Your task to perform on an android device: empty trash in the gmail app Image 0: 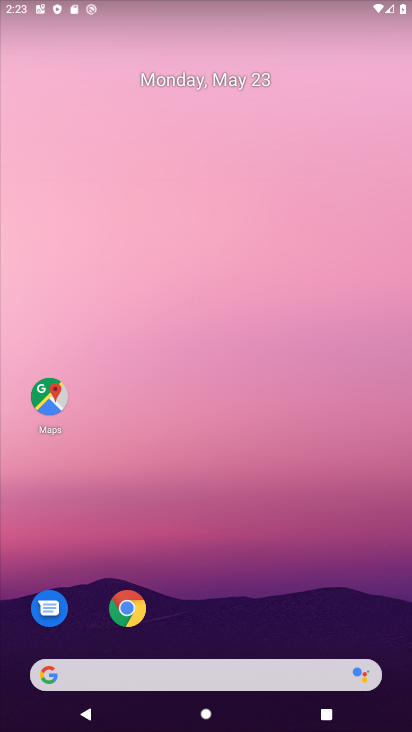
Step 0: drag from (197, 616) to (252, 133)
Your task to perform on an android device: empty trash in the gmail app Image 1: 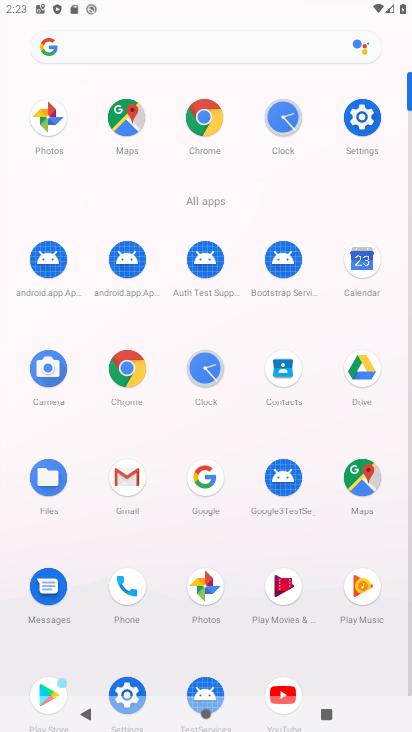
Step 1: click (124, 478)
Your task to perform on an android device: empty trash in the gmail app Image 2: 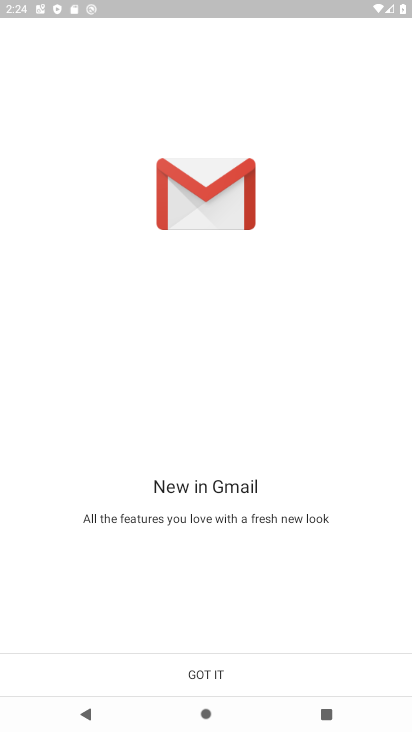
Step 2: click (200, 668)
Your task to perform on an android device: empty trash in the gmail app Image 3: 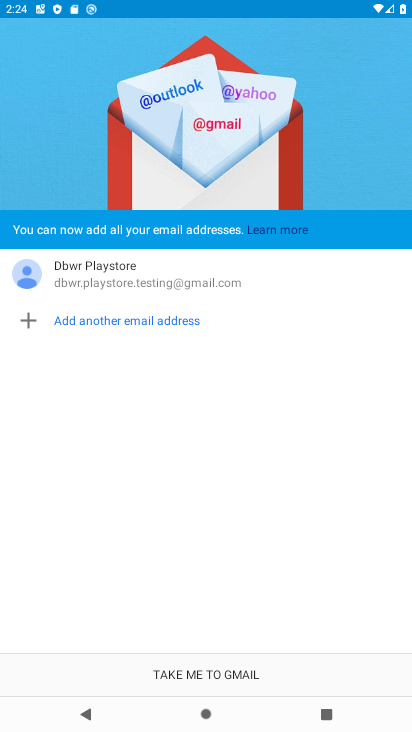
Step 3: click (202, 670)
Your task to perform on an android device: empty trash in the gmail app Image 4: 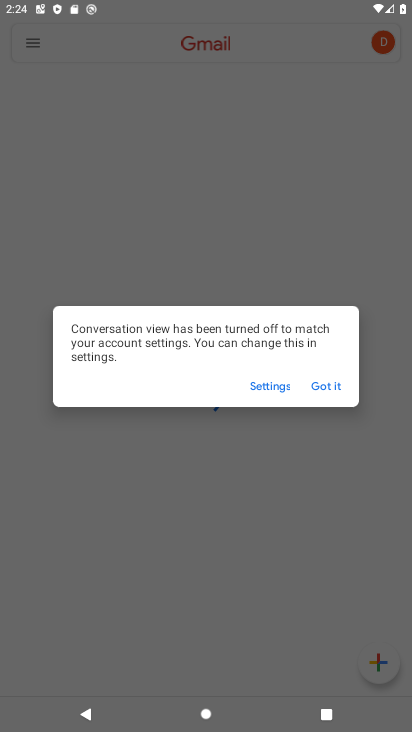
Step 4: click (322, 383)
Your task to perform on an android device: empty trash in the gmail app Image 5: 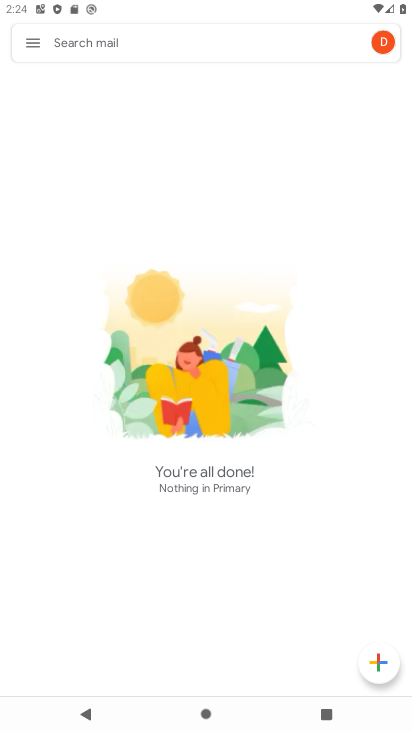
Step 5: click (35, 43)
Your task to perform on an android device: empty trash in the gmail app Image 6: 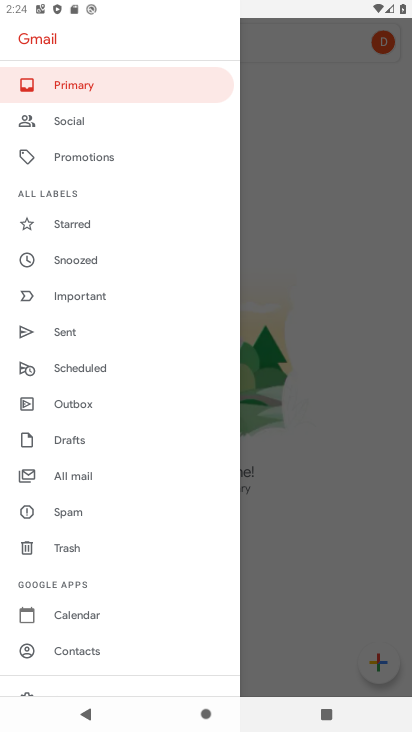
Step 6: click (91, 548)
Your task to perform on an android device: empty trash in the gmail app Image 7: 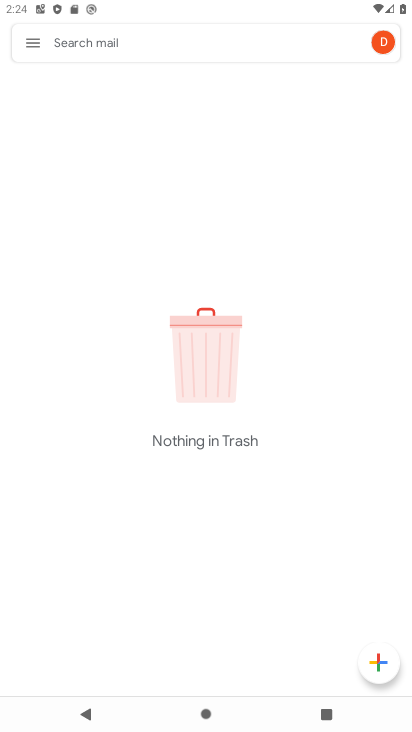
Step 7: task complete